Your task to perform on an android device: Open wifi settings Image 0: 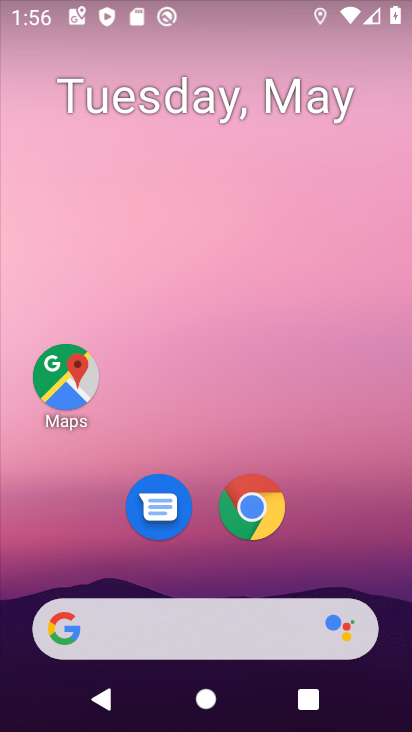
Step 0: drag from (327, 559) to (372, 45)
Your task to perform on an android device: Open wifi settings Image 1: 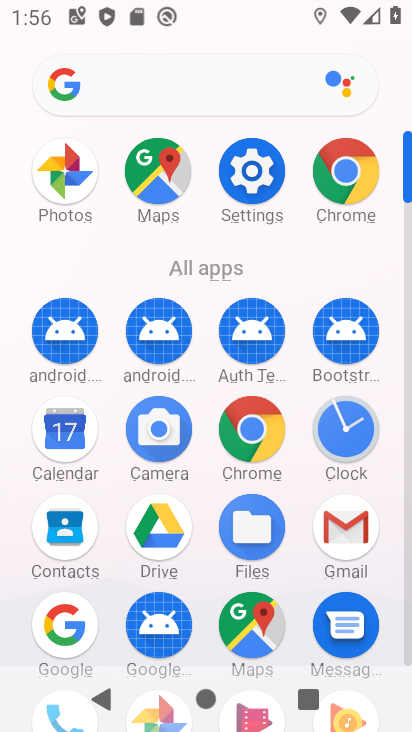
Step 1: click (257, 174)
Your task to perform on an android device: Open wifi settings Image 2: 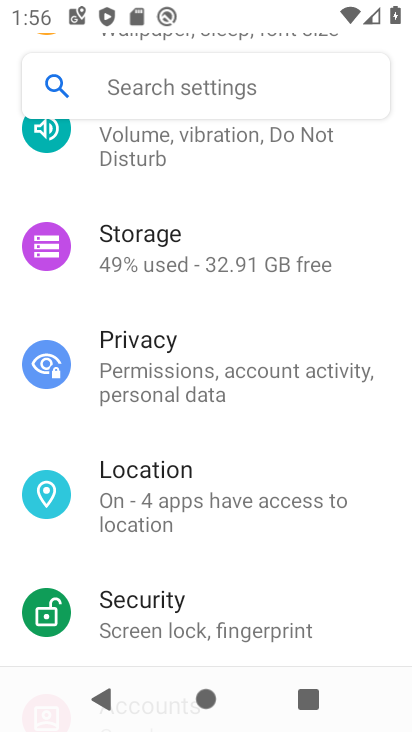
Step 2: drag from (192, 178) to (253, 374)
Your task to perform on an android device: Open wifi settings Image 3: 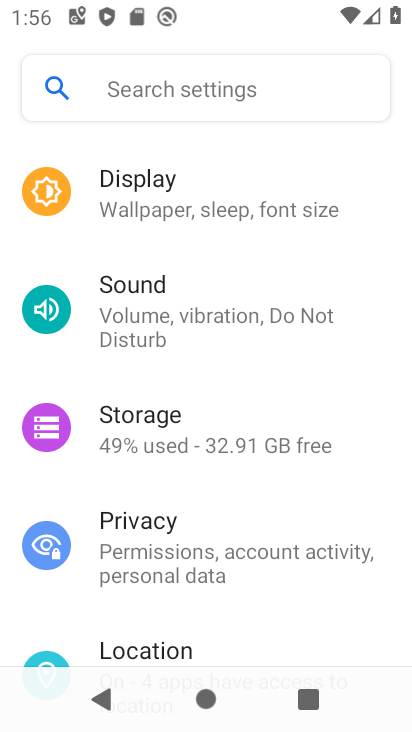
Step 3: drag from (230, 270) to (280, 451)
Your task to perform on an android device: Open wifi settings Image 4: 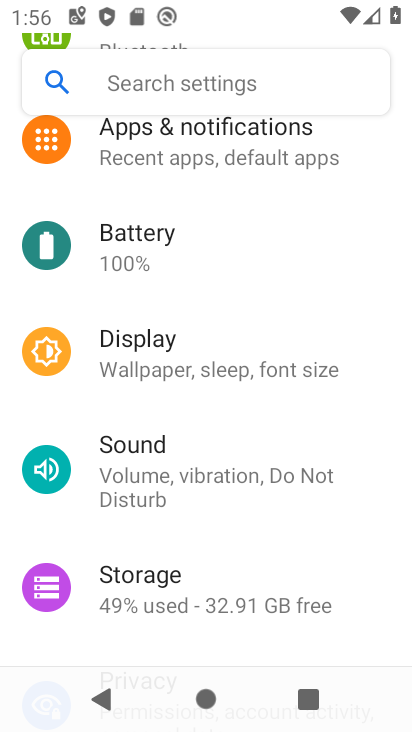
Step 4: drag from (243, 275) to (263, 498)
Your task to perform on an android device: Open wifi settings Image 5: 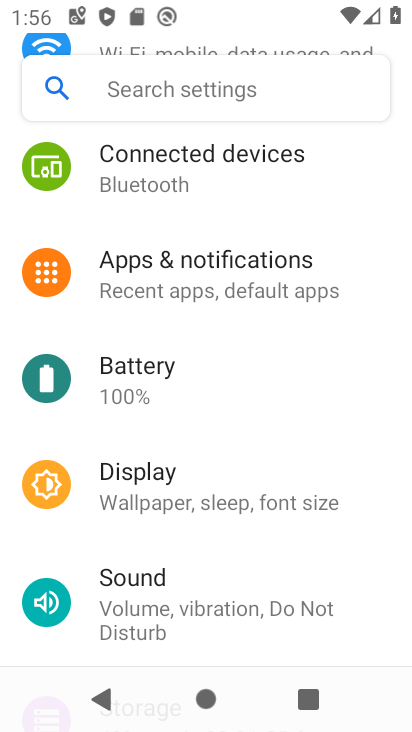
Step 5: drag from (251, 265) to (307, 451)
Your task to perform on an android device: Open wifi settings Image 6: 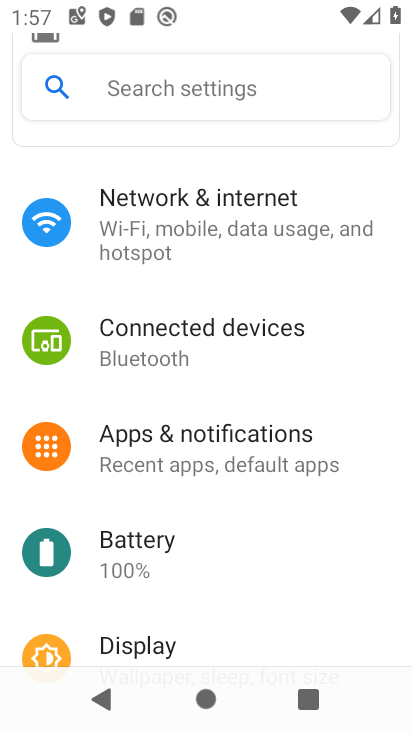
Step 6: click (247, 199)
Your task to perform on an android device: Open wifi settings Image 7: 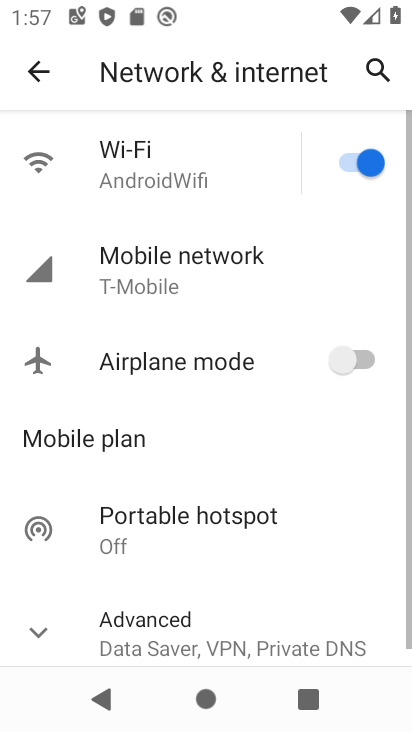
Step 7: click (125, 136)
Your task to perform on an android device: Open wifi settings Image 8: 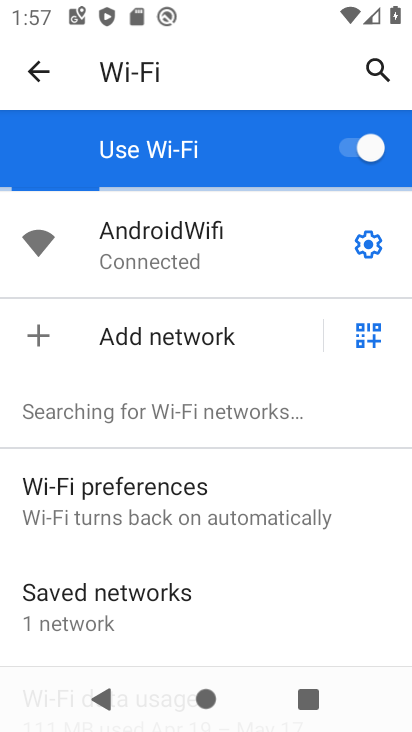
Step 8: task complete